Your task to perform on an android device: Open the web browser Image 0: 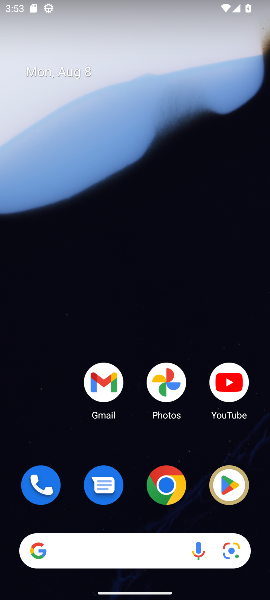
Step 0: press back button
Your task to perform on an android device: Open the web browser Image 1: 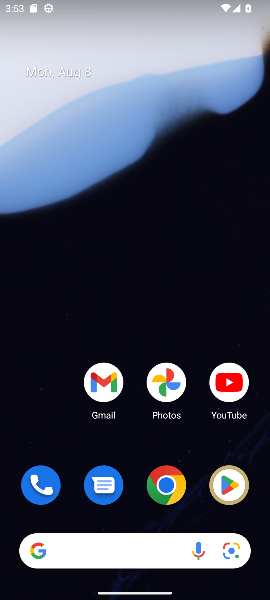
Step 1: click (132, 231)
Your task to perform on an android device: Open the web browser Image 2: 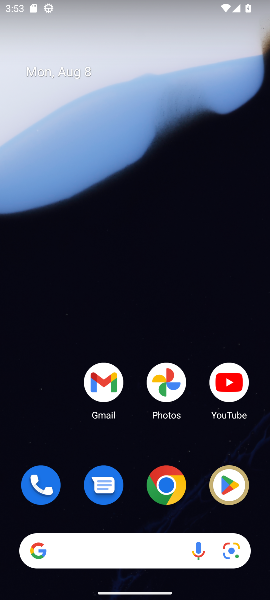
Step 2: drag from (159, 537) to (103, 120)
Your task to perform on an android device: Open the web browser Image 3: 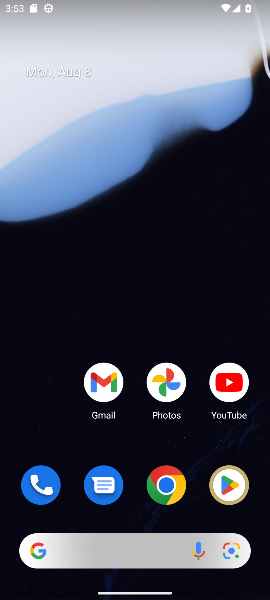
Step 3: drag from (165, 455) to (128, 114)
Your task to perform on an android device: Open the web browser Image 4: 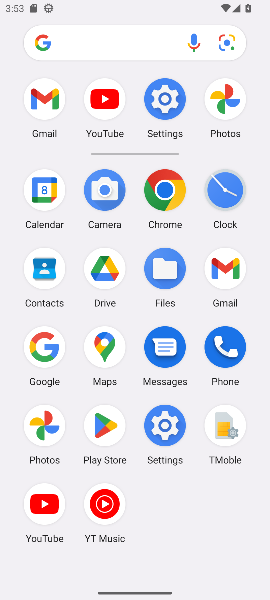
Step 4: click (158, 193)
Your task to perform on an android device: Open the web browser Image 5: 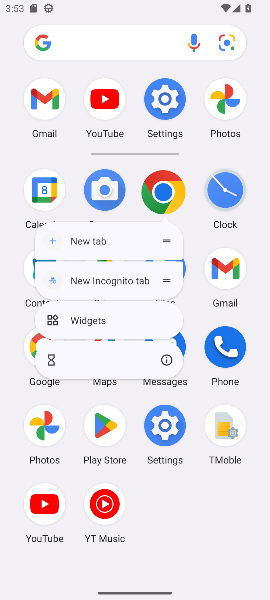
Step 5: click (169, 193)
Your task to perform on an android device: Open the web browser Image 6: 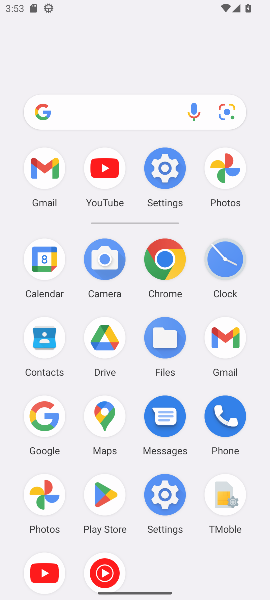
Step 6: click (169, 193)
Your task to perform on an android device: Open the web browser Image 7: 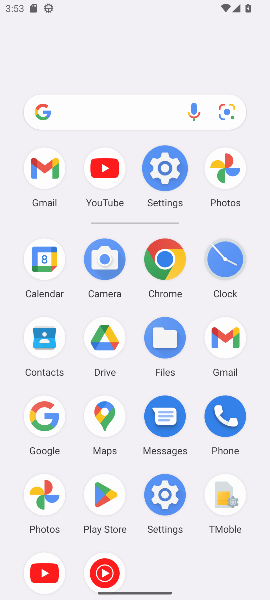
Step 7: click (169, 193)
Your task to perform on an android device: Open the web browser Image 8: 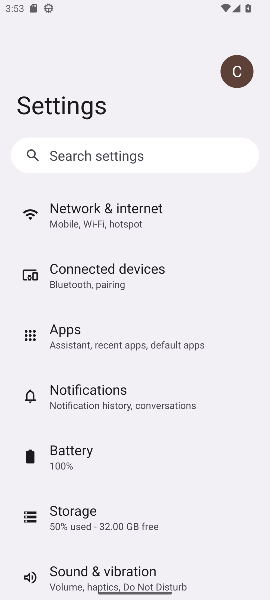
Step 8: click (21, 77)
Your task to perform on an android device: Open the web browser Image 9: 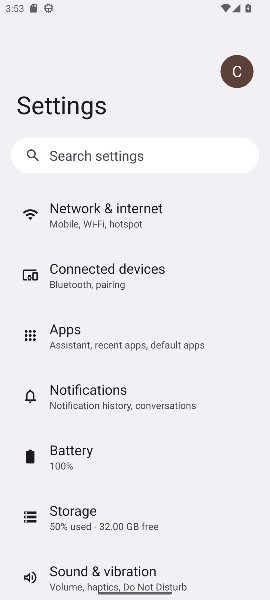
Step 9: press back button
Your task to perform on an android device: Open the web browser Image 10: 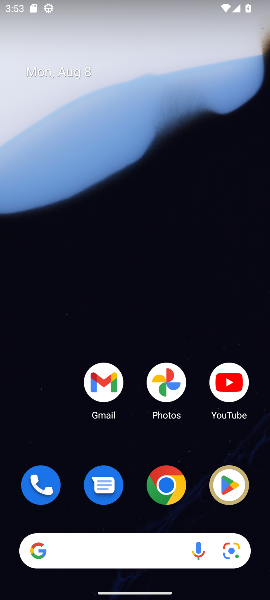
Step 10: drag from (171, 477) to (102, 152)
Your task to perform on an android device: Open the web browser Image 11: 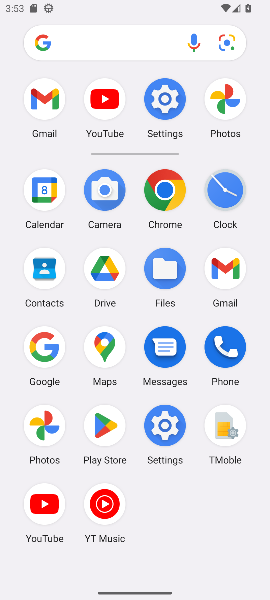
Step 11: click (162, 195)
Your task to perform on an android device: Open the web browser Image 12: 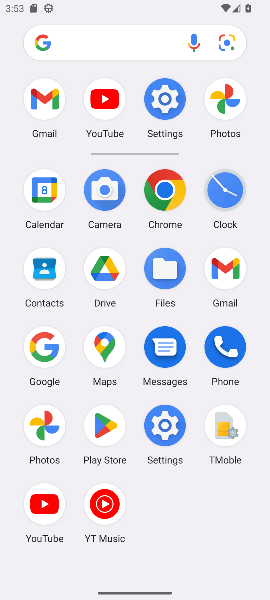
Step 12: click (162, 195)
Your task to perform on an android device: Open the web browser Image 13: 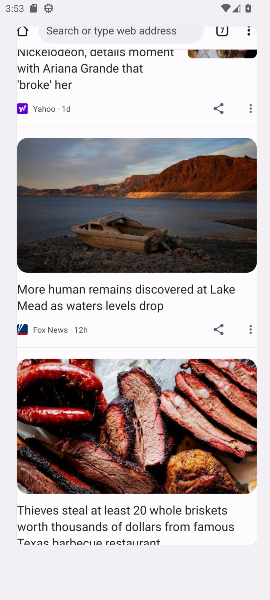
Step 13: click (162, 195)
Your task to perform on an android device: Open the web browser Image 14: 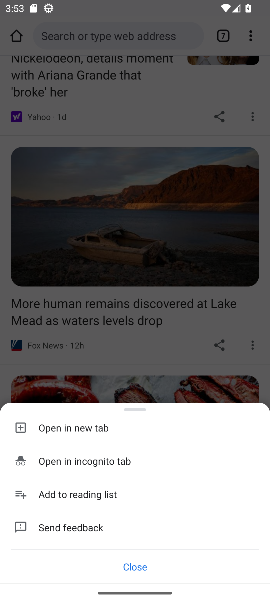
Step 14: drag from (155, 129) to (155, 437)
Your task to perform on an android device: Open the web browser Image 15: 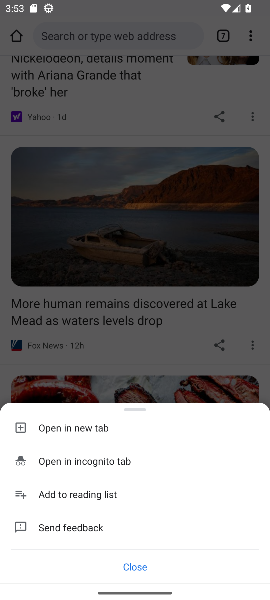
Step 15: drag from (127, 186) to (116, 425)
Your task to perform on an android device: Open the web browser Image 16: 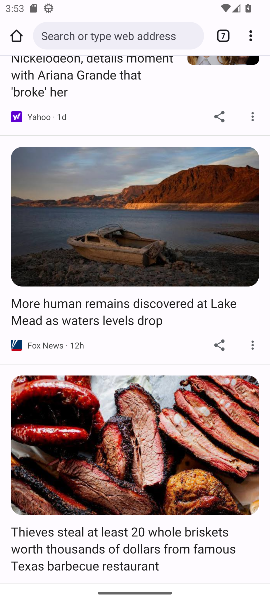
Step 16: drag from (86, 213) to (129, 505)
Your task to perform on an android device: Open the web browser Image 17: 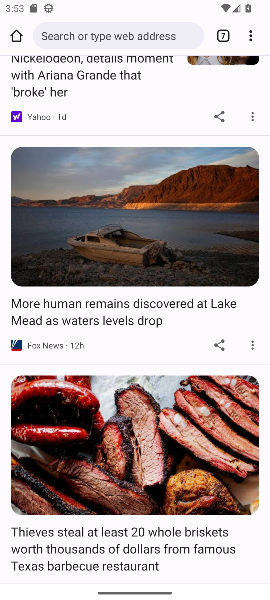
Step 17: drag from (93, 266) to (150, 541)
Your task to perform on an android device: Open the web browser Image 18: 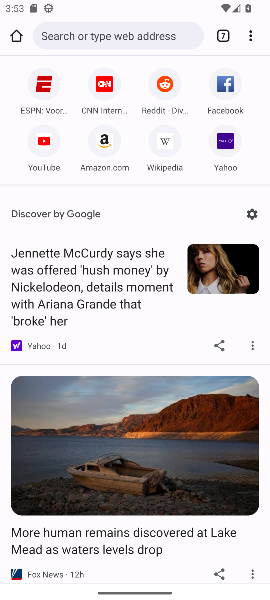
Step 18: drag from (55, 209) to (118, 599)
Your task to perform on an android device: Open the web browser Image 19: 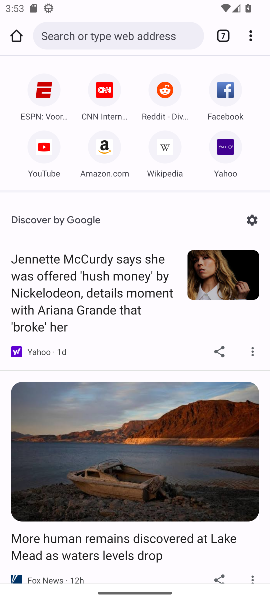
Step 19: drag from (91, 274) to (130, 546)
Your task to perform on an android device: Open the web browser Image 20: 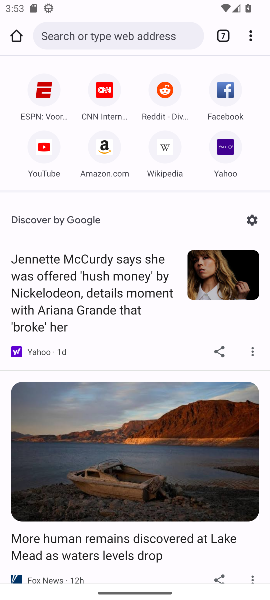
Step 20: drag from (110, 281) to (135, 583)
Your task to perform on an android device: Open the web browser Image 21: 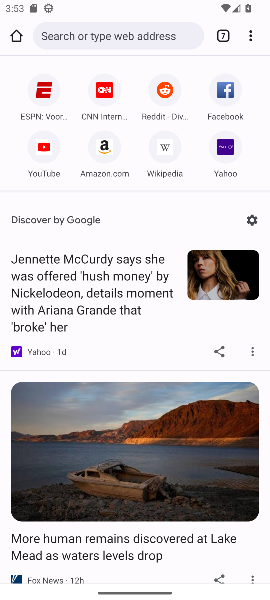
Step 21: drag from (86, 202) to (148, 480)
Your task to perform on an android device: Open the web browser Image 22: 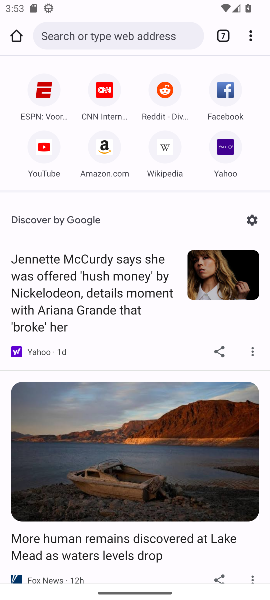
Step 22: drag from (110, 254) to (141, 560)
Your task to perform on an android device: Open the web browser Image 23: 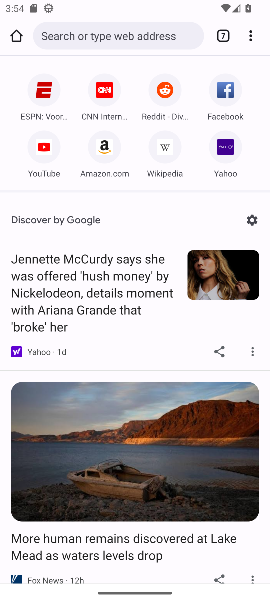
Step 23: click (250, 35)
Your task to perform on an android device: Open the web browser Image 24: 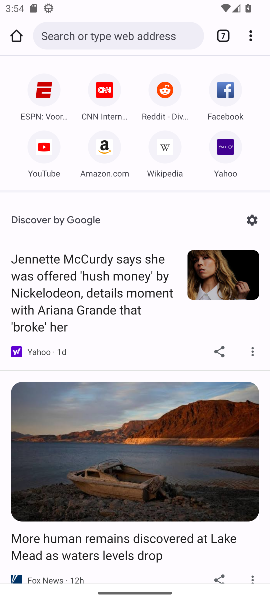
Step 24: task complete